Your task to perform on an android device: Go to privacy settings Image 0: 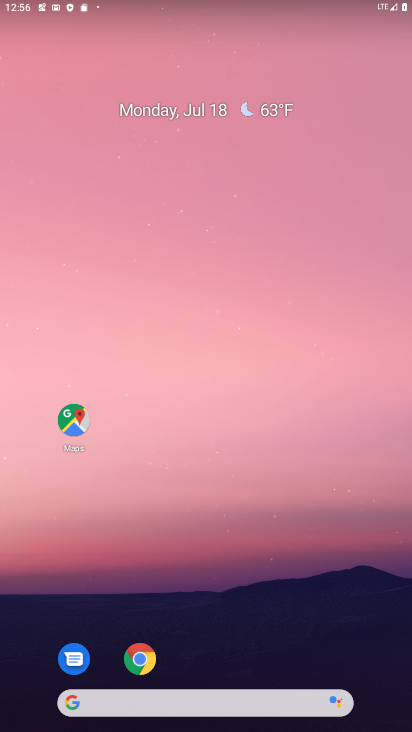
Step 0: drag from (237, 623) to (288, 265)
Your task to perform on an android device: Go to privacy settings Image 1: 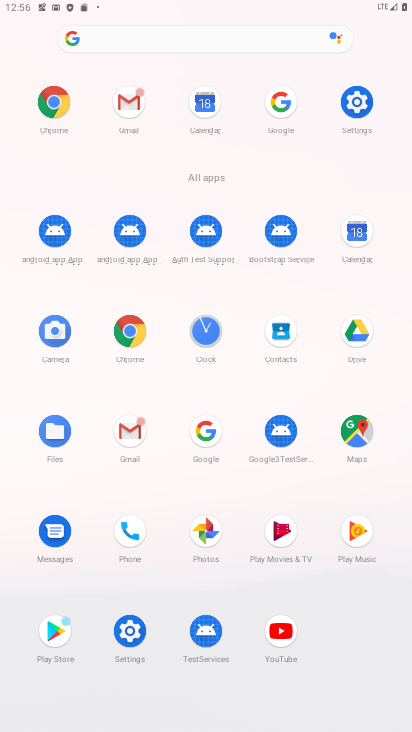
Step 1: click (352, 107)
Your task to perform on an android device: Go to privacy settings Image 2: 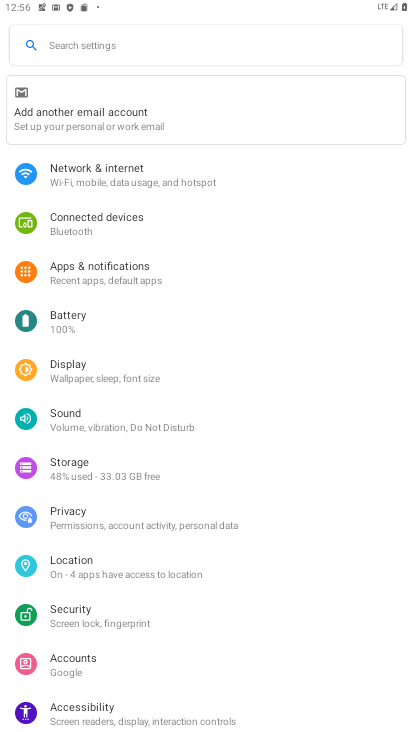
Step 2: click (85, 503)
Your task to perform on an android device: Go to privacy settings Image 3: 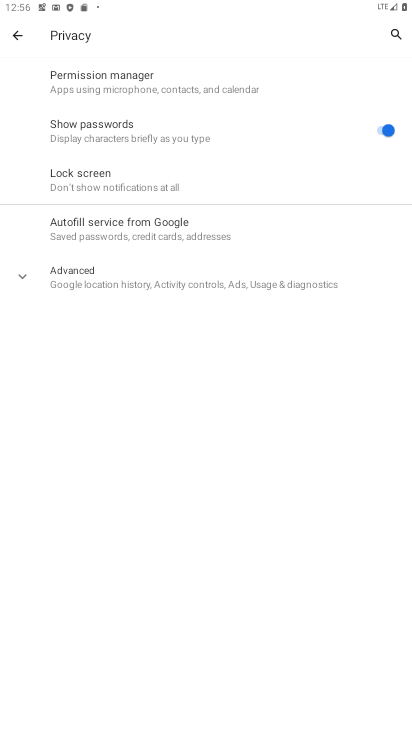
Step 3: click (48, 272)
Your task to perform on an android device: Go to privacy settings Image 4: 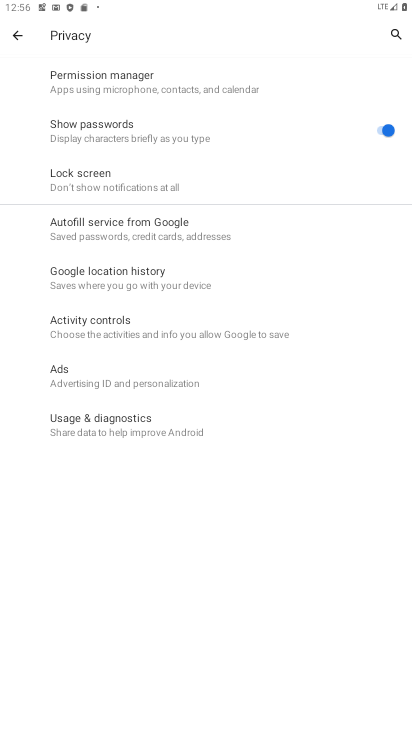
Step 4: task complete